Your task to perform on an android device: turn on translation in the chrome app Image 0: 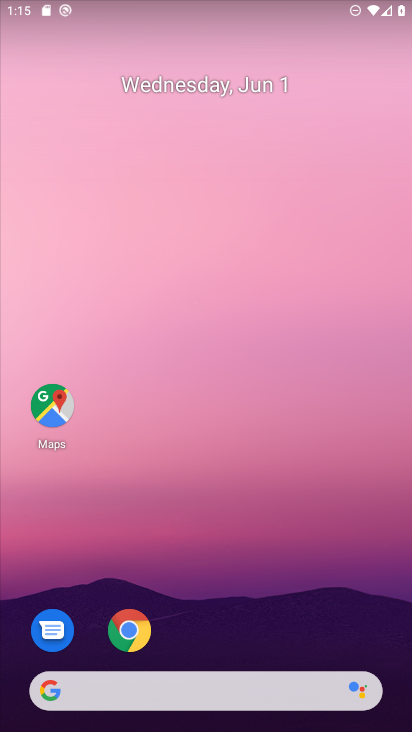
Step 0: press home button
Your task to perform on an android device: turn on translation in the chrome app Image 1: 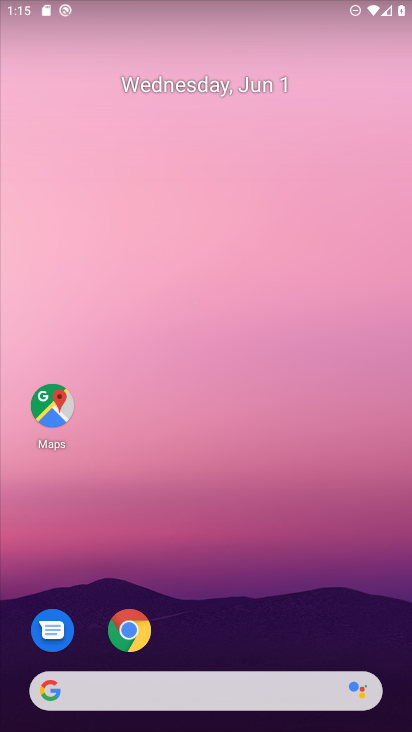
Step 1: click (129, 628)
Your task to perform on an android device: turn on translation in the chrome app Image 2: 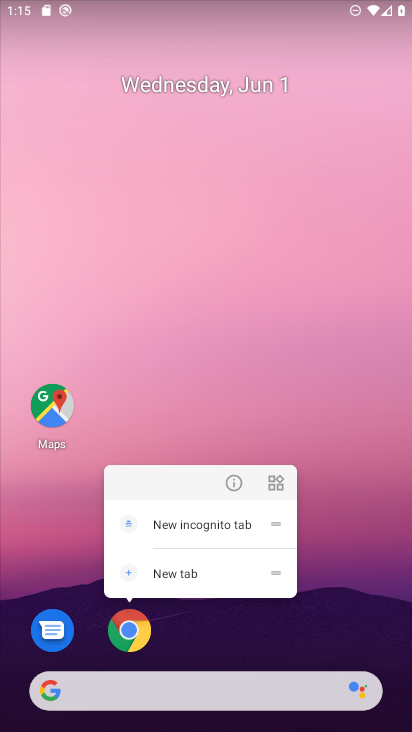
Step 2: click (134, 632)
Your task to perform on an android device: turn on translation in the chrome app Image 3: 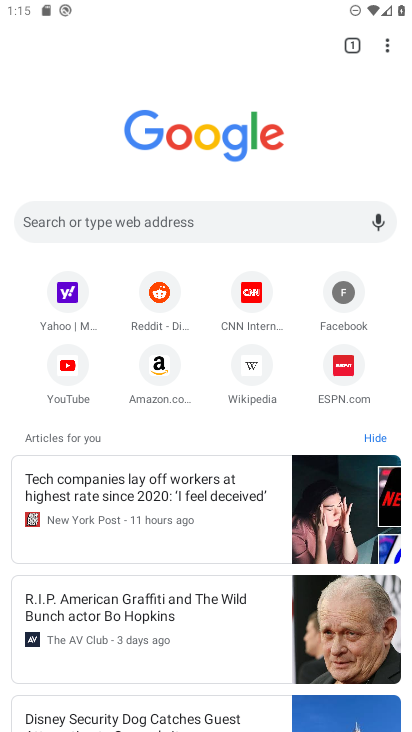
Step 3: drag from (392, 48) to (252, 375)
Your task to perform on an android device: turn on translation in the chrome app Image 4: 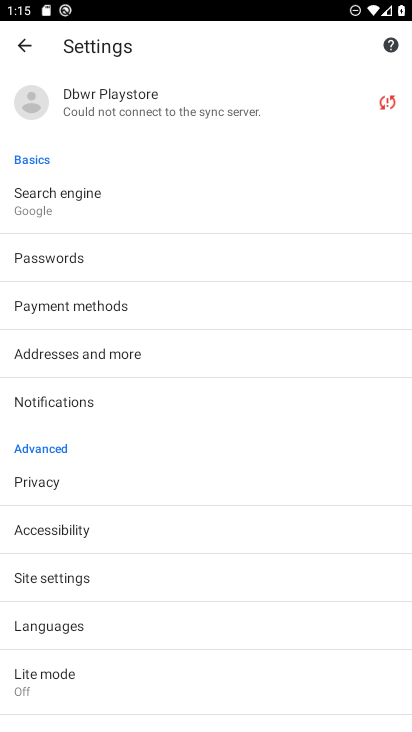
Step 4: click (42, 623)
Your task to perform on an android device: turn on translation in the chrome app Image 5: 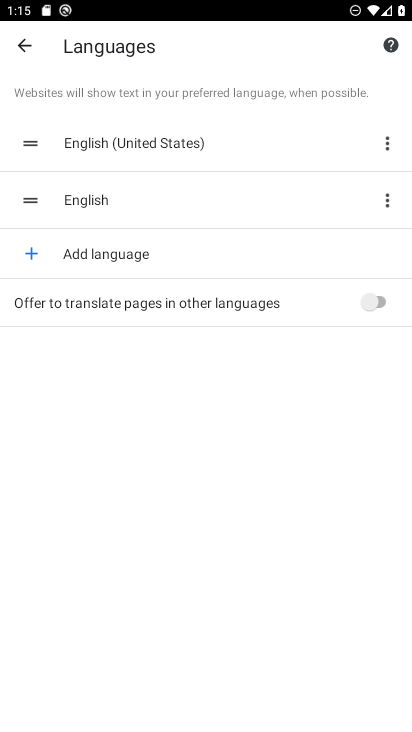
Step 5: click (367, 302)
Your task to perform on an android device: turn on translation in the chrome app Image 6: 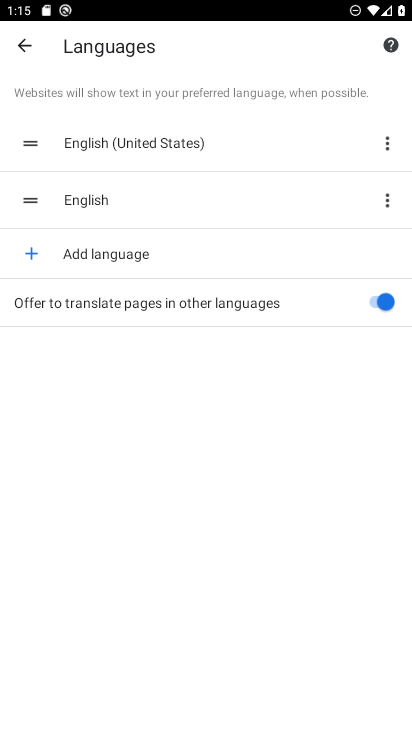
Step 6: task complete